Your task to perform on an android device: What's on my calendar today? Image 0: 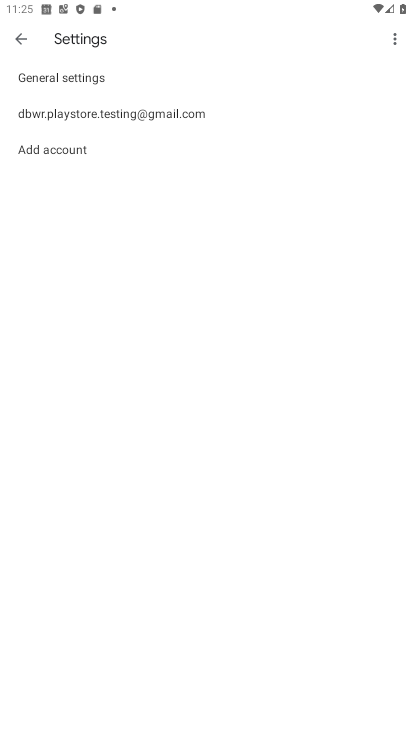
Step 0: press home button
Your task to perform on an android device: What's on my calendar today? Image 1: 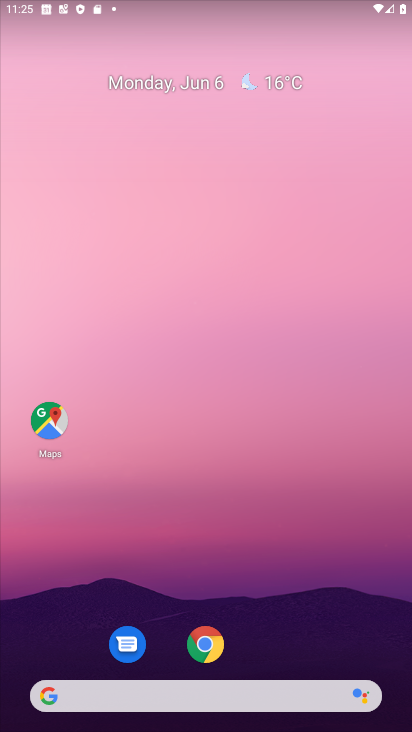
Step 1: drag from (350, 619) to (243, 85)
Your task to perform on an android device: What's on my calendar today? Image 2: 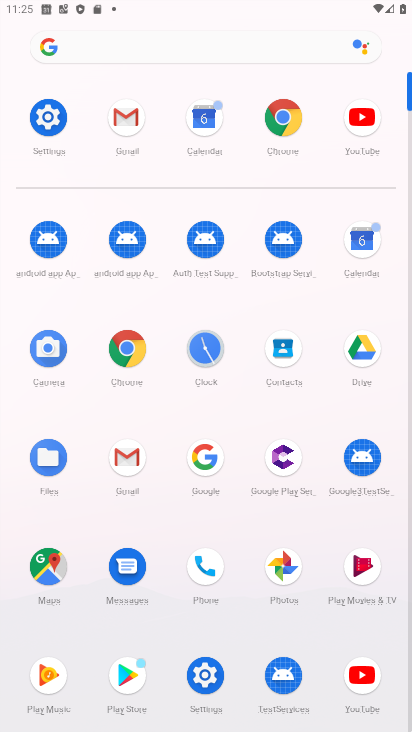
Step 2: click (369, 252)
Your task to perform on an android device: What's on my calendar today? Image 3: 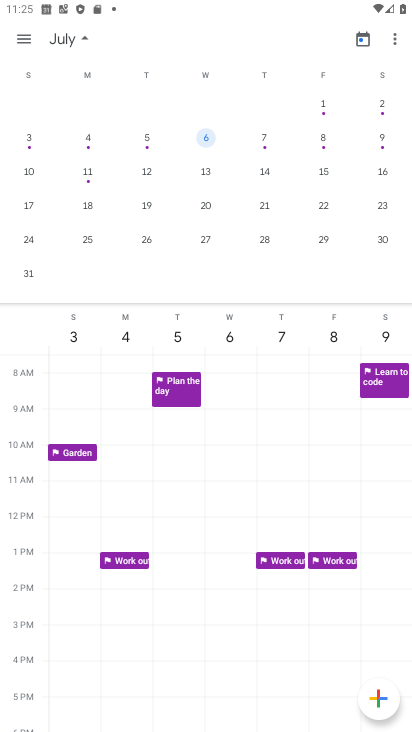
Step 3: click (26, 35)
Your task to perform on an android device: What's on my calendar today? Image 4: 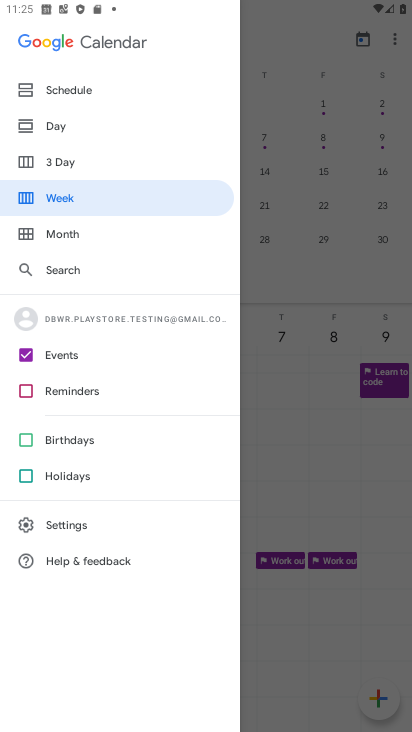
Step 4: click (86, 124)
Your task to perform on an android device: What's on my calendar today? Image 5: 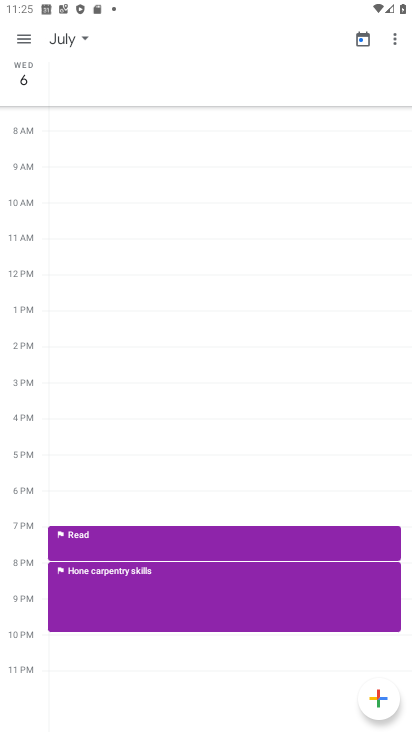
Step 5: click (87, 52)
Your task to perform on an android device: What's on my calendar today? Image 6: 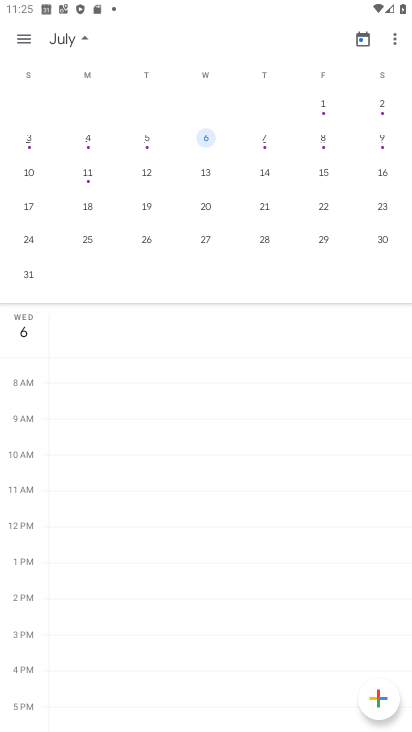
Step 6: click (275, 149)
Your task to perform on an android device: What's on my calendar today? Image 7: 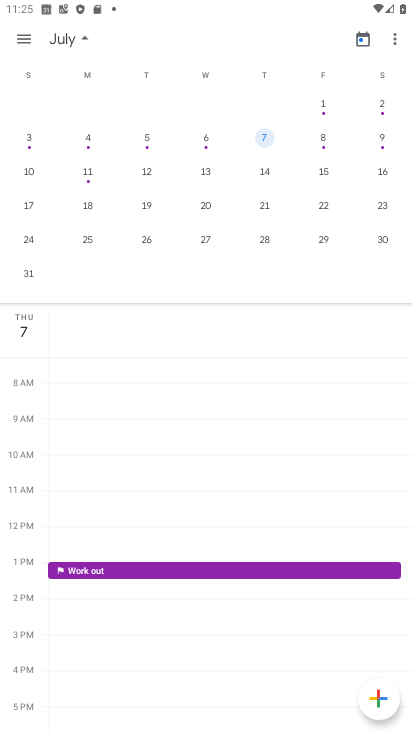
Step 7: task complete